Your task to perform on an android device: read, delete, or share a saved page in the chrome app Image 0: 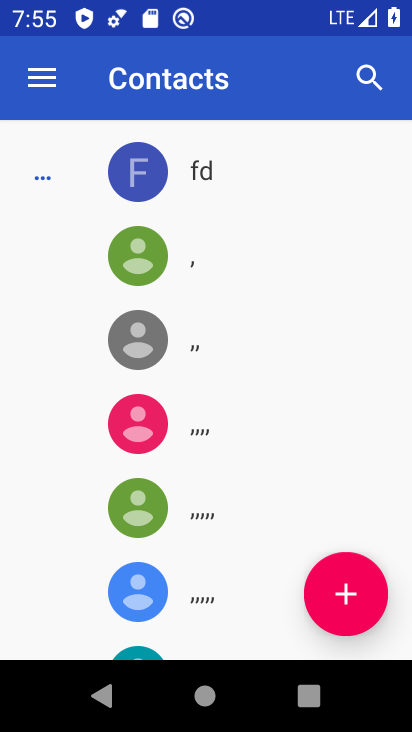
Step 0: press home button
Your task to perform on an android device: read, delete, or share a saved page in the chrome app Image 1: 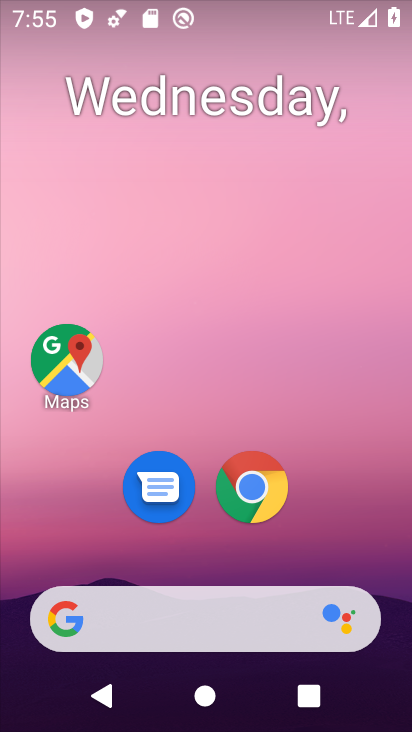
Step 1: click (260, 495)
Your task to perform on an android device: read, delete, or share a saved page in the chrome app Image 2: 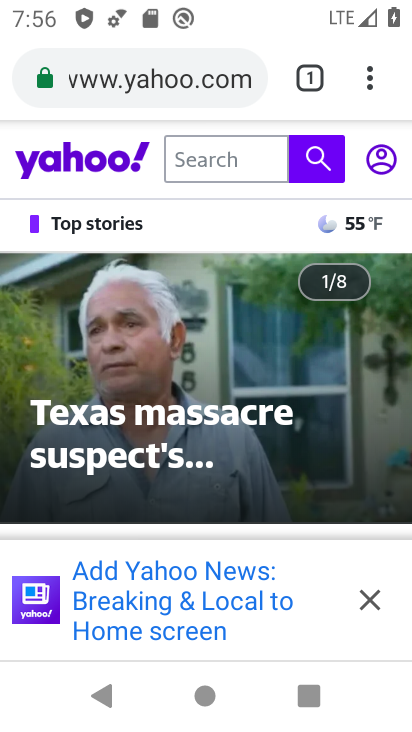
Step 2: click (309, 85)
Your task to perform on an android device: read, delete, or share a saved page in the chrome app Image 3: 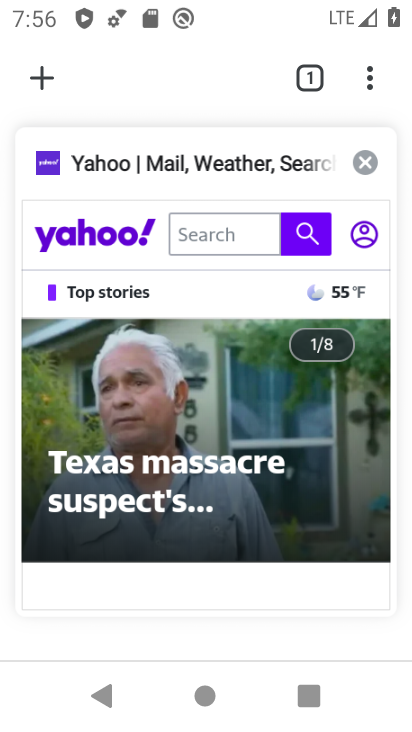
Step 3: click (367, 165)
Your task to perform on an android device: read, delete, or share a saved page in the chrome app Image 4: 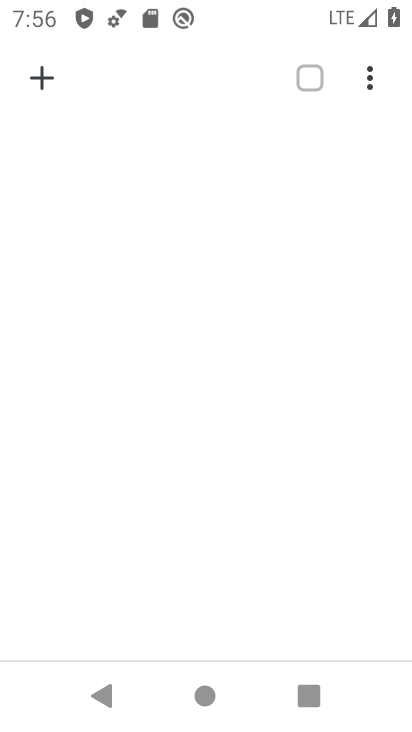
Step 4: click (44, 70)
Your task to perform on an android device: read, delete, or share a saved page in the chrome app Image 5: 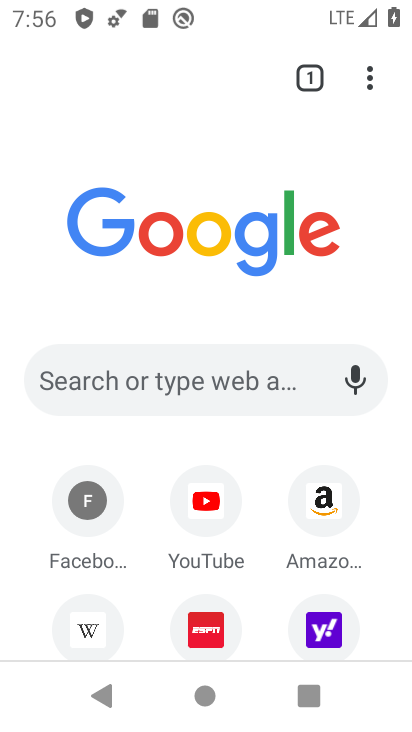
Step 5: drag from (16, 617) to (287, 137)
Your task to perform on an android device: read, delete, or share a saved page in the chrome app Image 6: 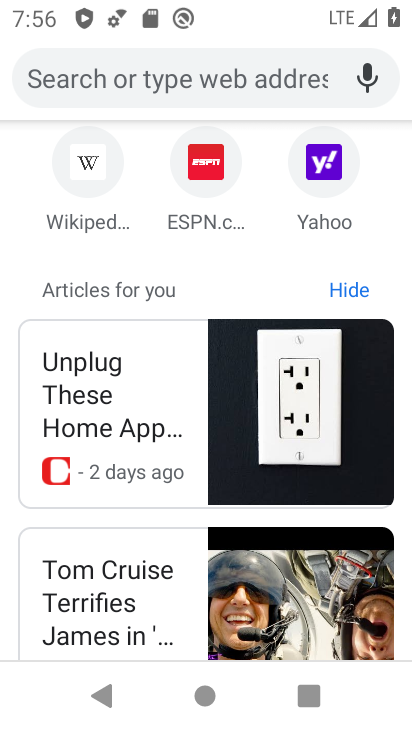
Step 6: drag from (118, 156) to (72, 449)
Your task to perform on an android device: read, delete, or share a saved page in the chrome app Image 7: 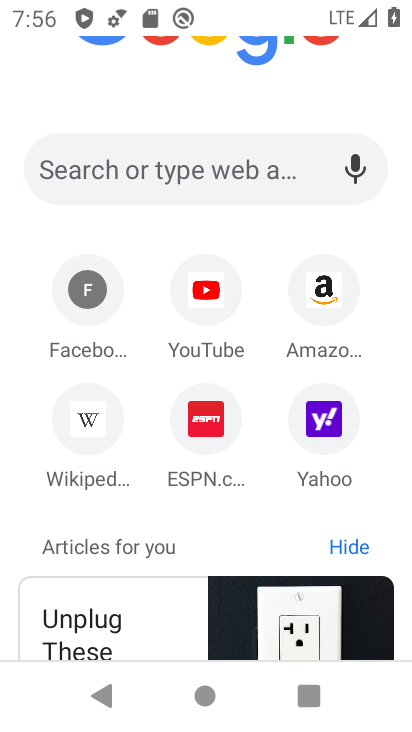
Step 7: click (97, 312)
Your task to perform on an android device: read, delete, or share a saved page in the chrome app Image 8: 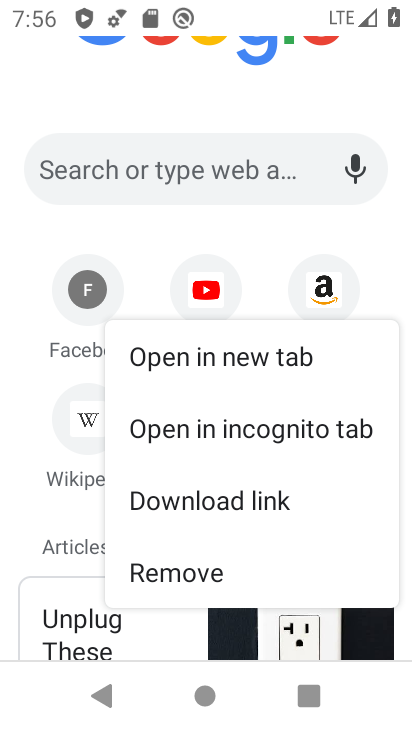
Step 8: click (193, 578)
Your task to perform on an android device: read, delete, or share a saved page in the chrome app Image 9: 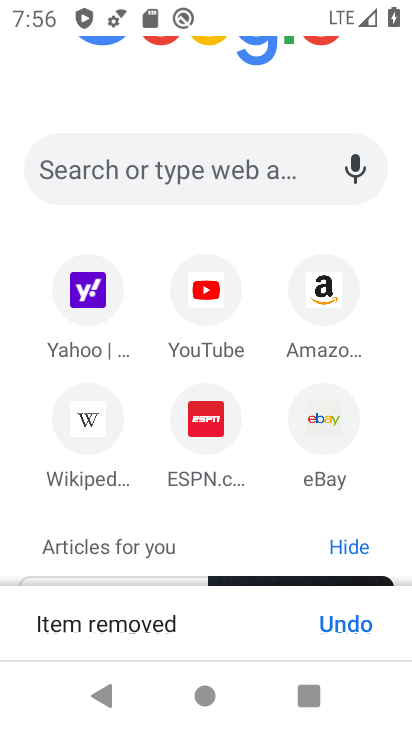
Step 9: task complete